Your task to perform on an android device: Go to Google Image 0: 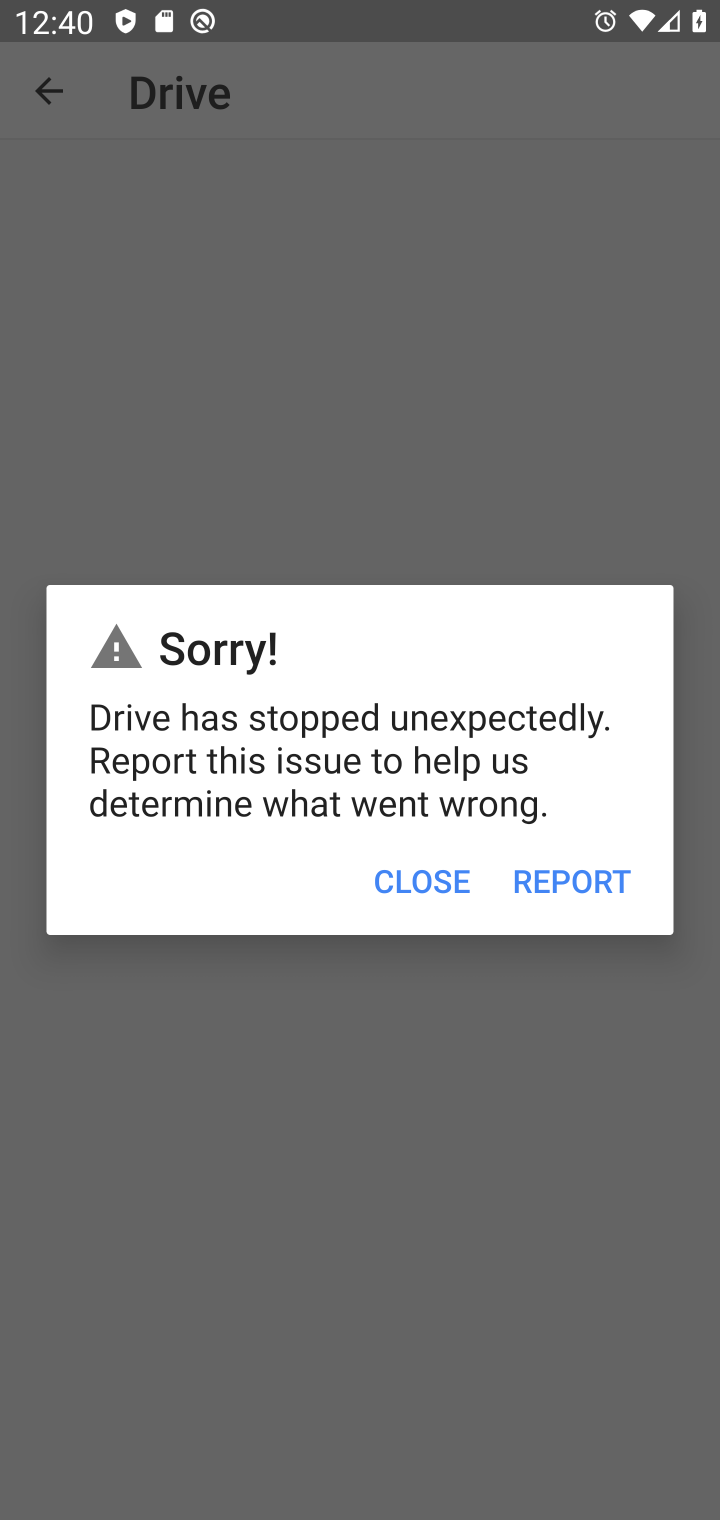
Step 0: press home button
Your task to perform on an android device: Go to Google Image 1: 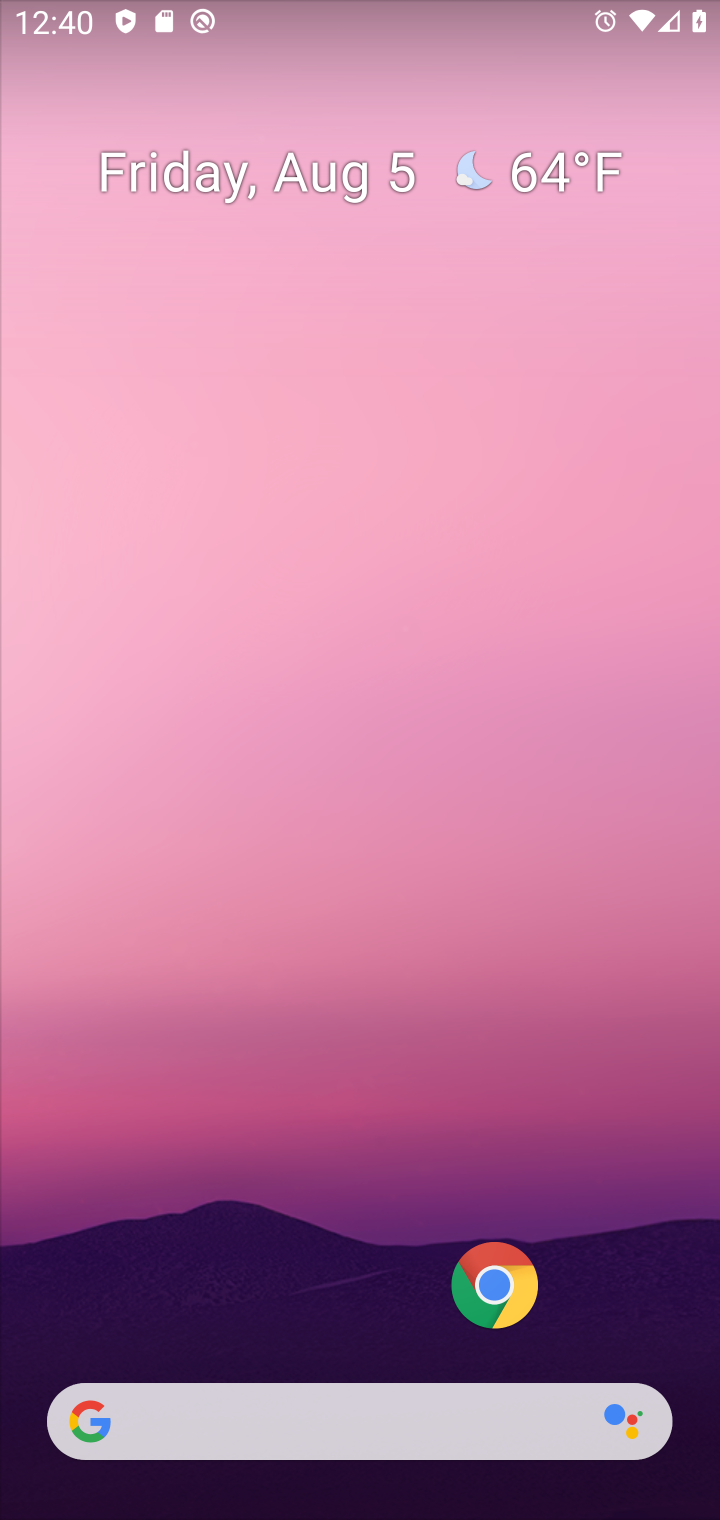
Step 1: drag from (312, 1313) to (124, 195)
Your task to perform on an android device: Go to Google Image 2: 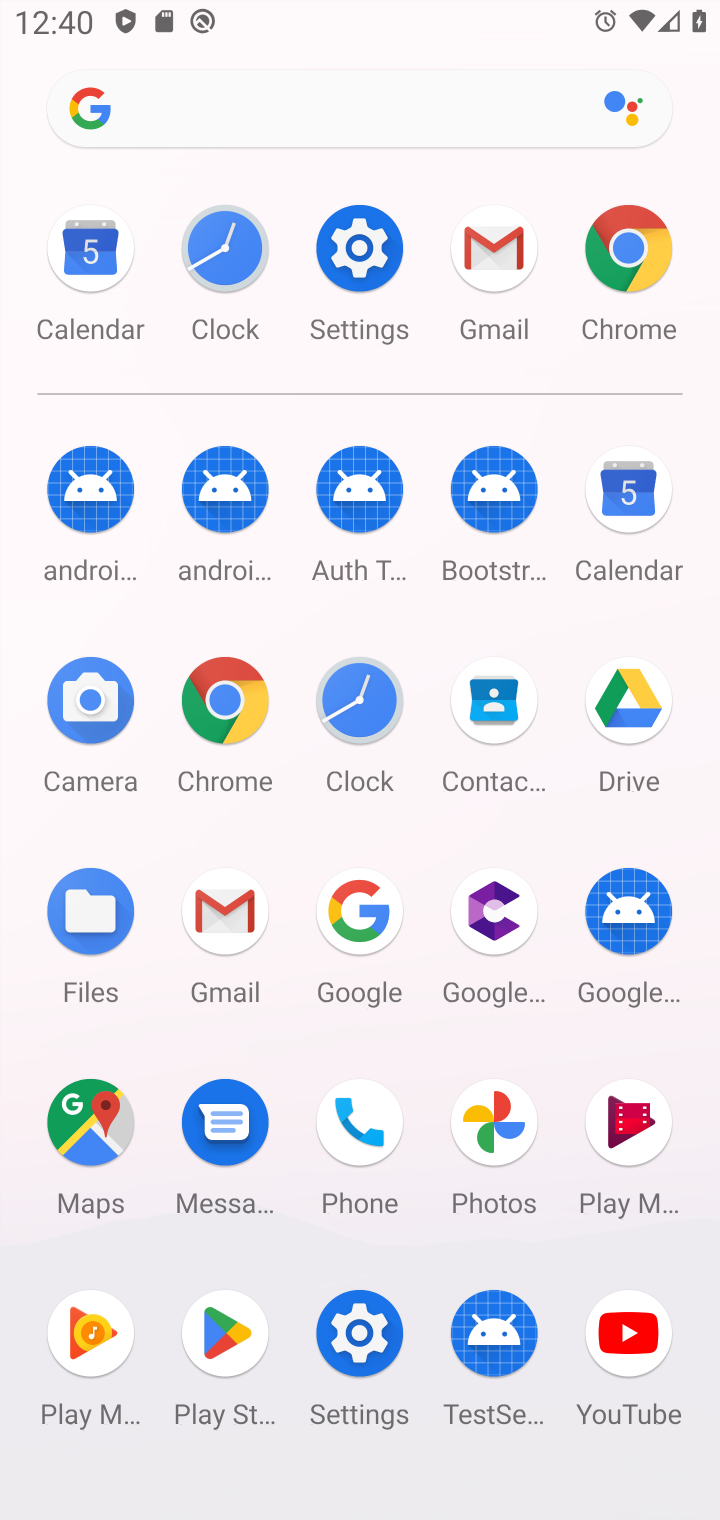
Step 2: click (348, 988)
Your task to perform on an android device: Go to Google Image 3: 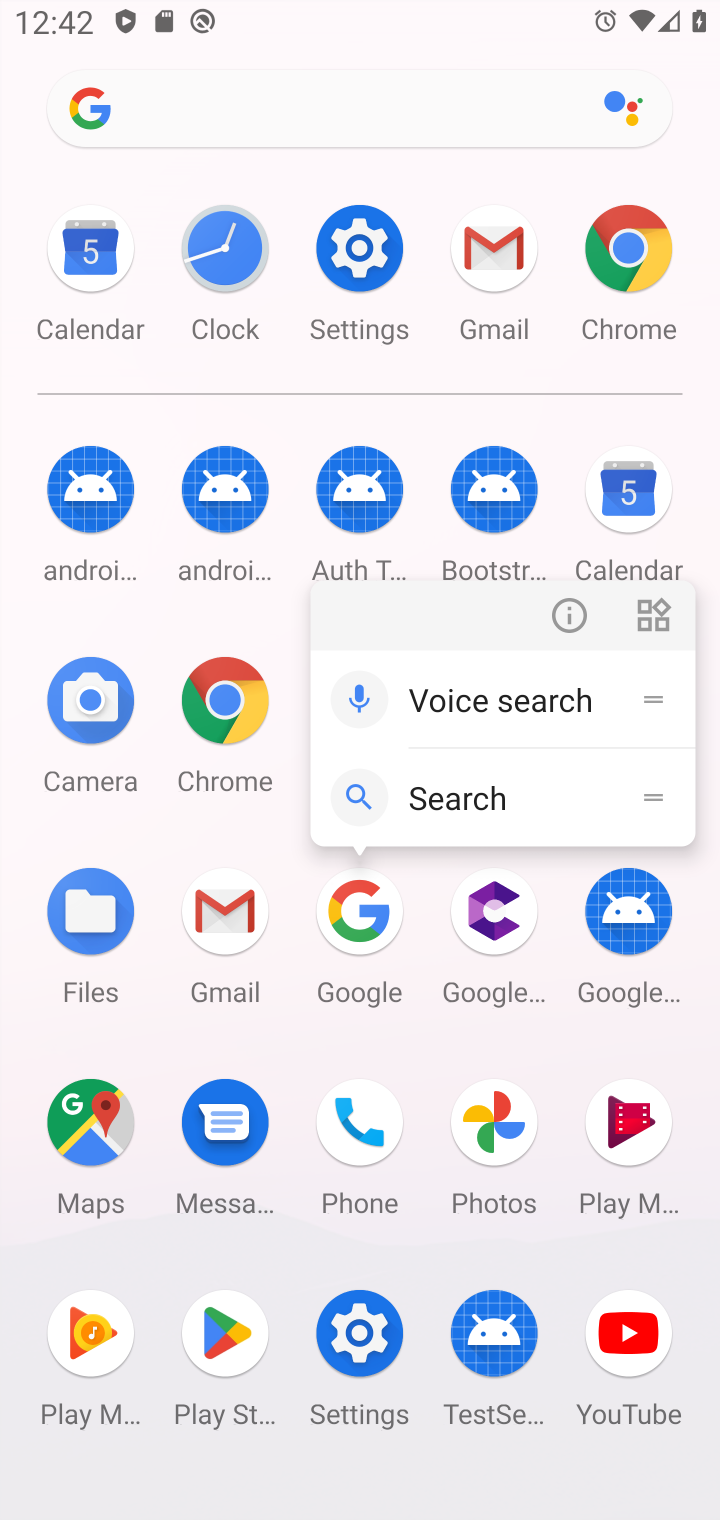
Step 3: click (361, 929)
Your task to perform on an android device: Go to Google Image 4: 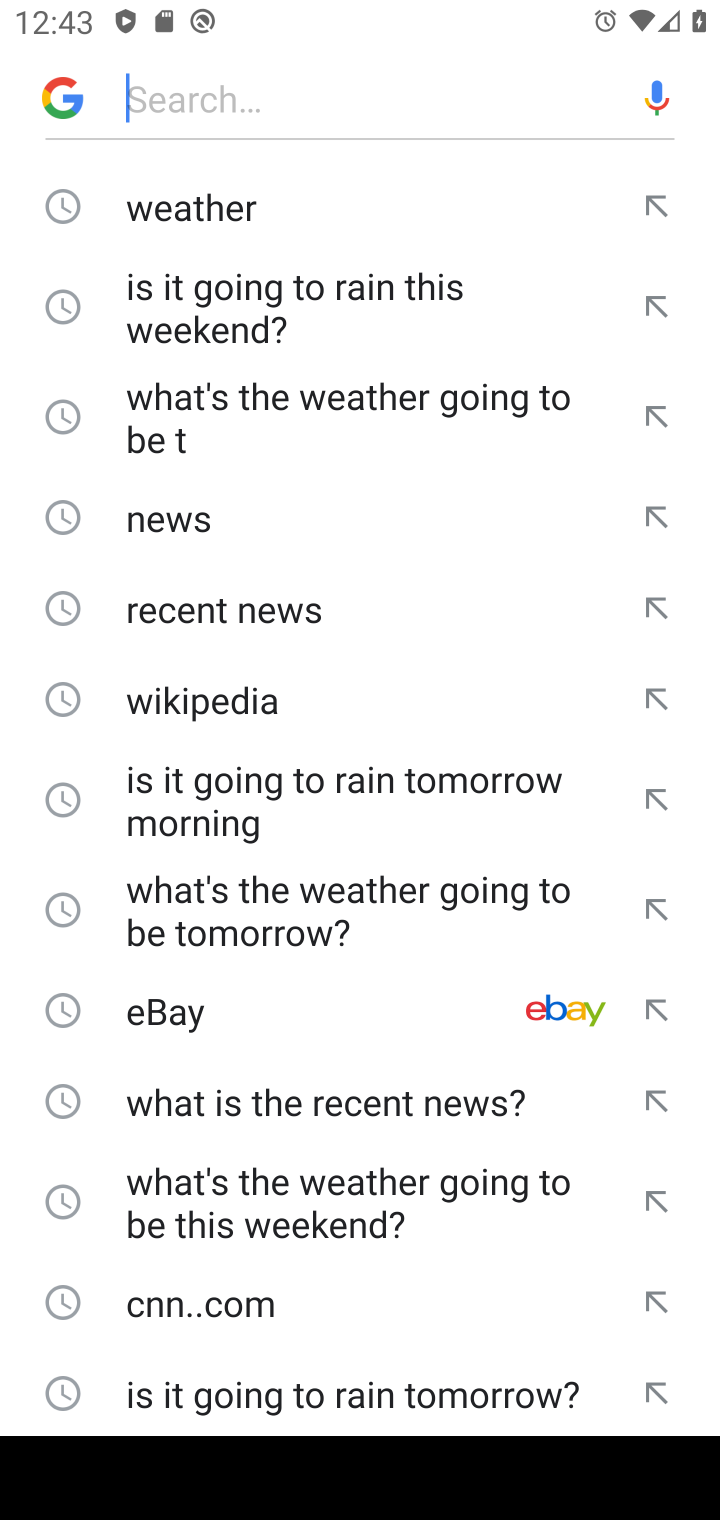
Step 4: task complete